Your task to perform on an android device: allow cookies in the chrome app Image 0: 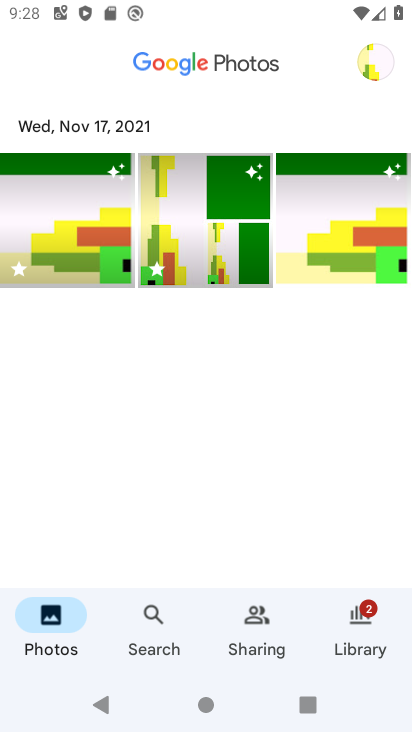
Step 0: press home button
Your task to perform on an android device: allow cookies in the chrome app Image 1: 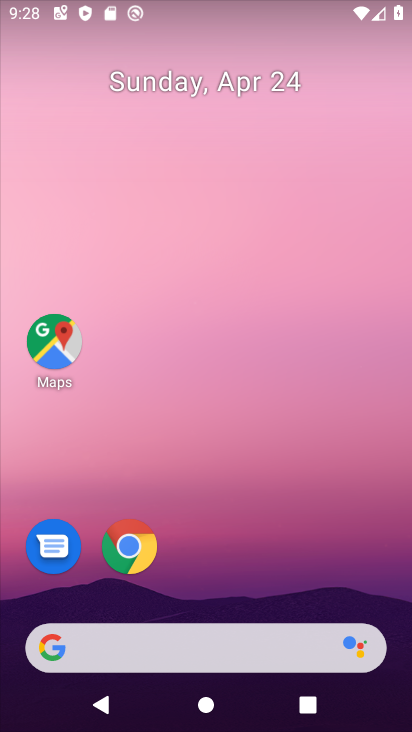
Step 1: click (150, 538)
Your task to perform on an android device: allow cookies in the chrome app Image 2: 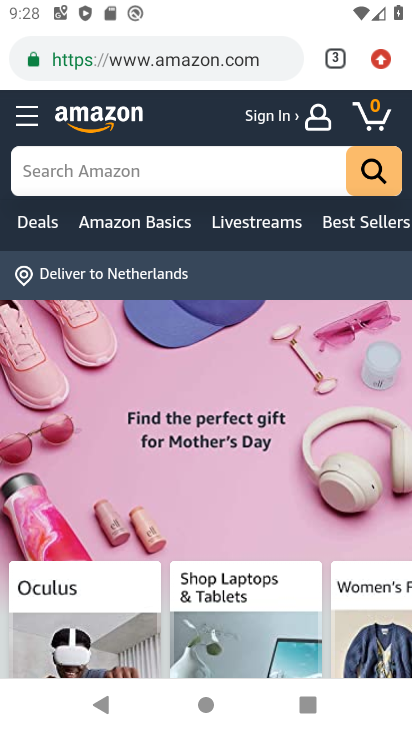
Step 2: click (377, 65)
Your task to perform on an android device: allow cookies in the chrome app Image 3: 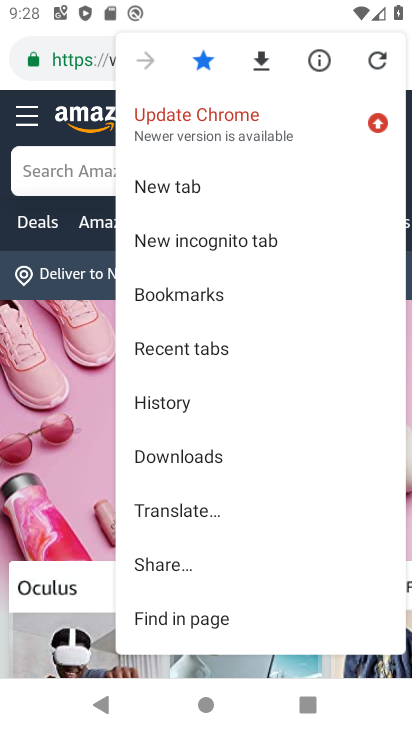
Step 3: drag from (250, 550) to (263, 432)
Your task to perform on an android device: allow cookies in the chrome app Image 4: 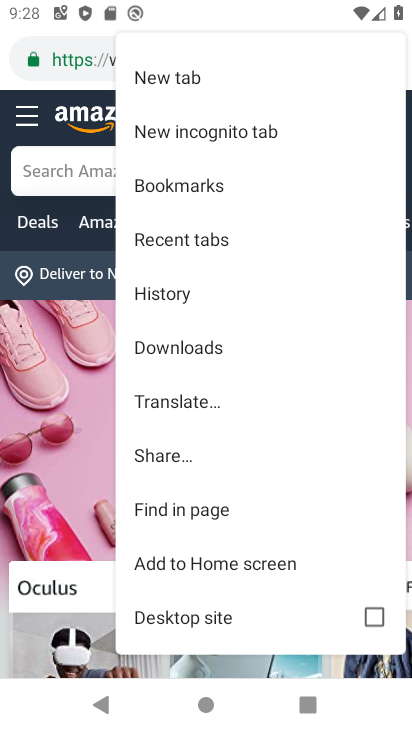
Step 4: drag from (230, 561) to (246, 402)
Your task to perform on an android device: allow cookies in the chrome app Image 5: 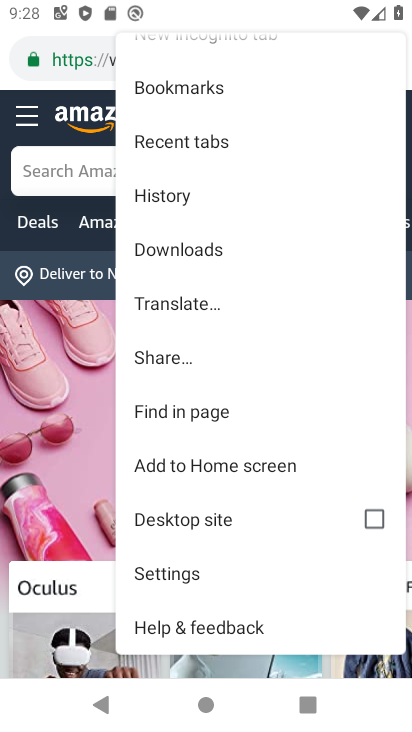
Step 5: click (191, 561)
Your task to perform on an android device: allow cookies in the chrome app Image 6: 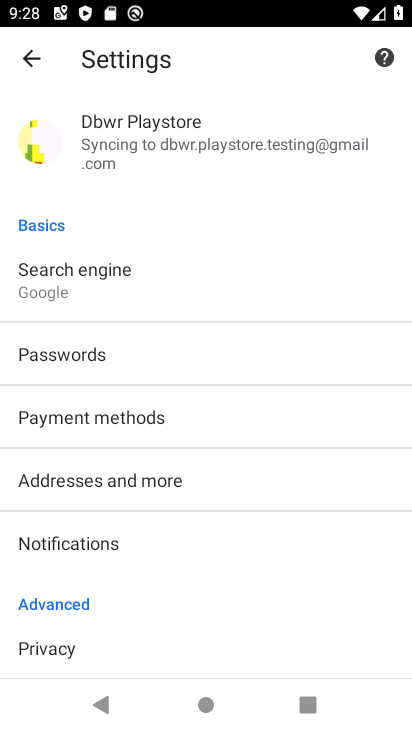
Step 6: drag from (257, 508) to (307, 264)
Your task to perform on an android device: allow cookies in the chrome app Image 7: 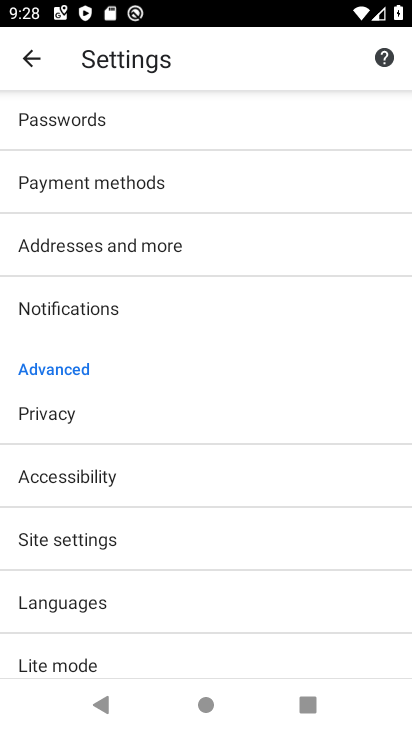
Step 7: click (168, 520)
Your task to perform on an android device: allow cookies in the chrome app Image 8: 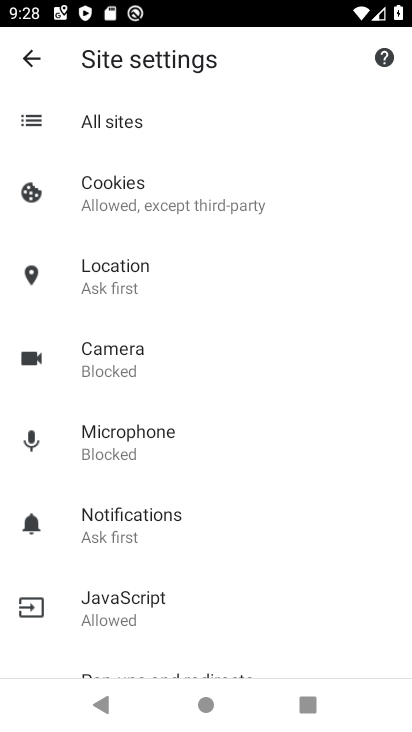
Step 8: task complete